Your task to perform on an android device: check storage Image 0: 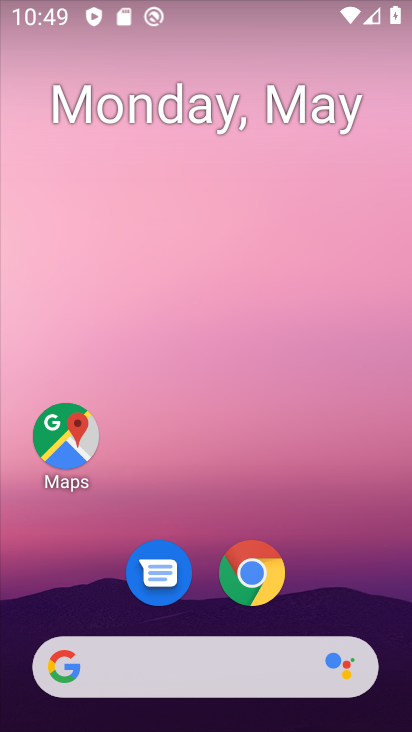
Step 0: drag from (316, 467) to (227, 66)
Your task to perform on an android device: check storage Image 1: 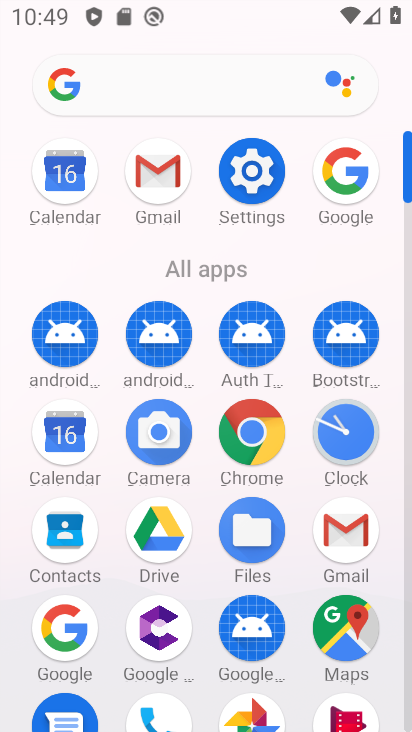
Step 1: click (257, 184)
Your task to perform on an android device: check storage Image 2: 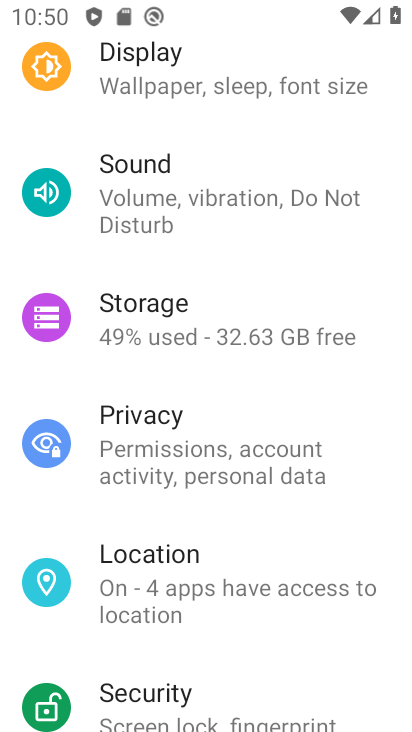
Step 2: drag from (259, 608) to (254, 200)
Your task to perform on an android device: check storage Image 3: 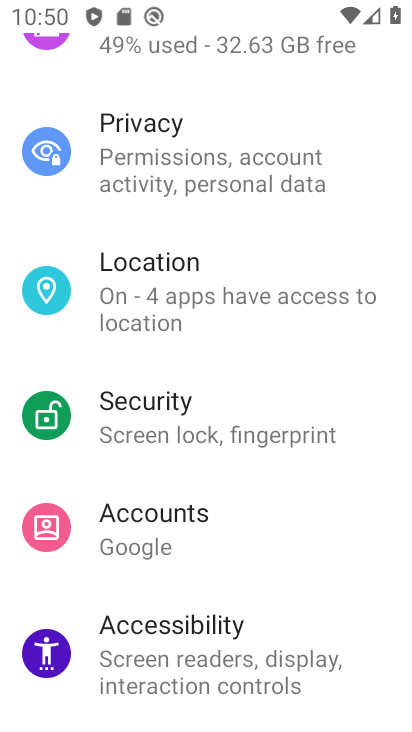
Step 3: drag from (248, 475) to (241, 120)
Your task to perform on an android device: check storage Image 4: 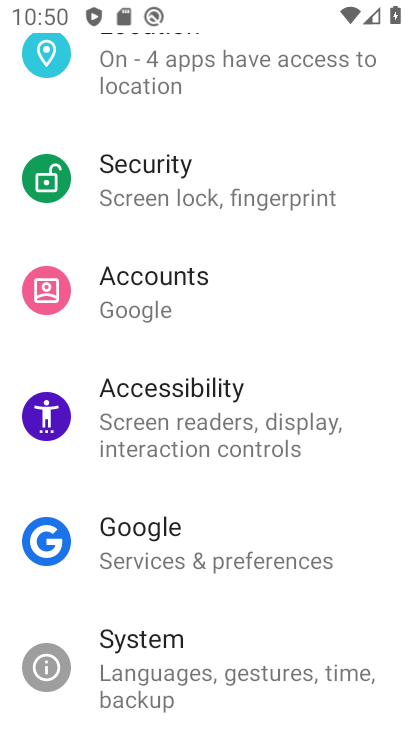
Step 4: drag from (240, 504) to (233, 116)
Your task to perform on an android device: check storage Image 5: 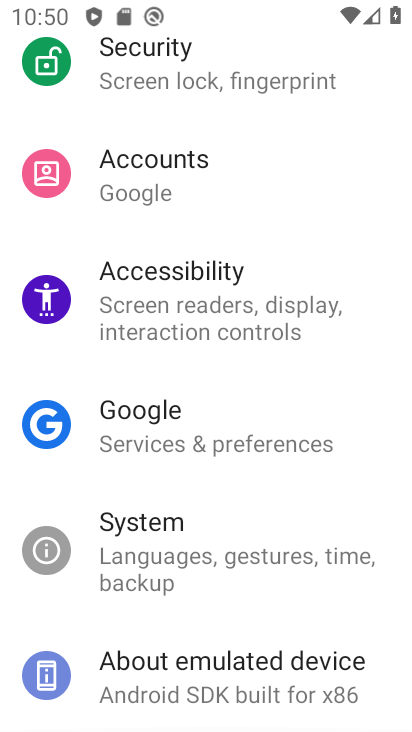
Step 5: drag from (249, 89) to (210, 704)
Your task to perform on an android device: check storage Image 6: 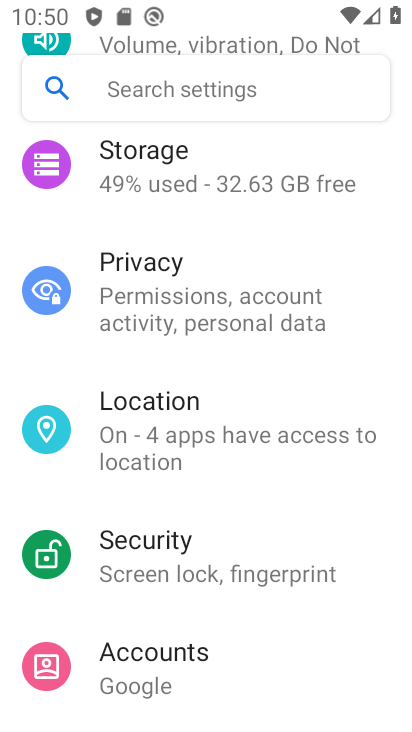
Step 6: drag from (237, 302) to (215, 650)
Your task to perform on an android device: check storage Image 7: 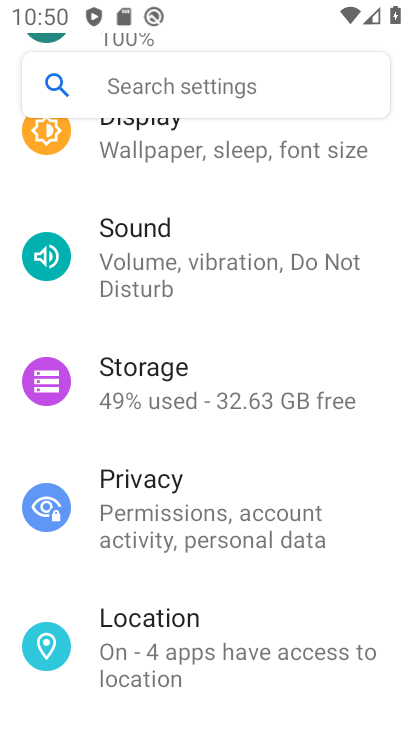
Step 7: click (209, 388)
Your task to perform on an android device: check storage Image 8: 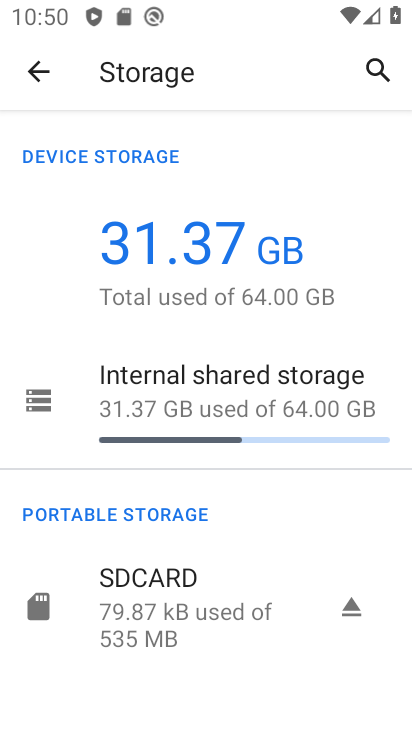
Step 8: task complete